Your task to perform on an android device: change text size in settings app Image 0: 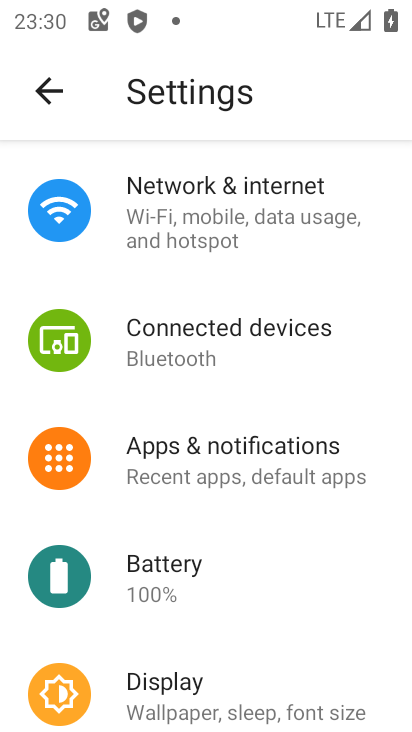
Step 0: press home button
Your task to perform on an android device: change text size in settings app Image 1: 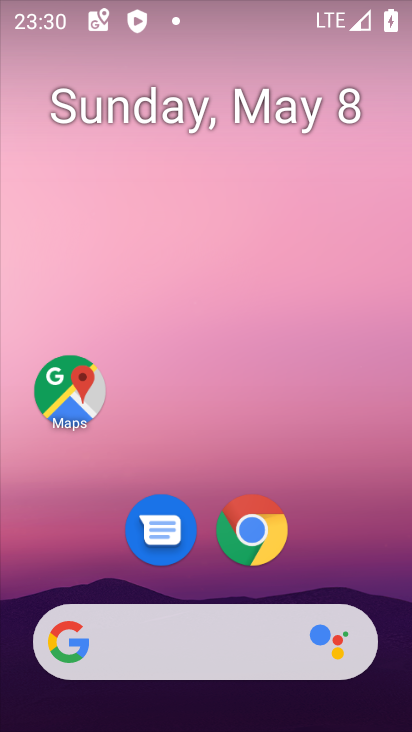
Step 1: drag from (394, 562) to (362, 171)
Your task to perform on an android device: change text size in settings app Image 2: 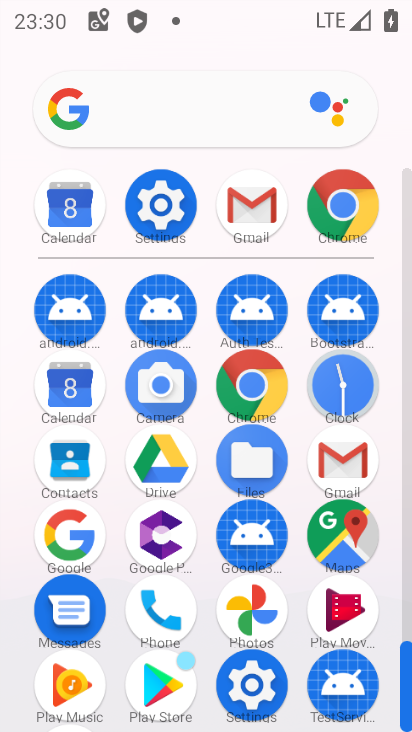
Step 2: click (244, 689)
Your task to perform on an android device: change text size in settings app Image 3: 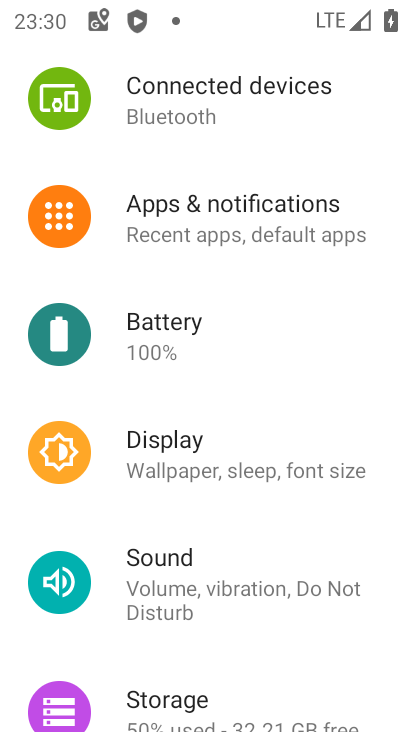
Step 3: click (198, 489)
Your task to perform on an android device: change text size in settings app Image 4: 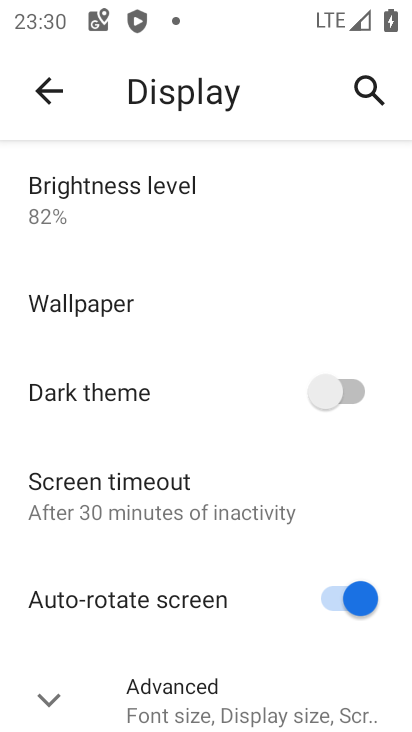
Step 4: drag from (226, 602) to (187, 306)
Your task to perform on an android device: change text size in settings app Image 5: 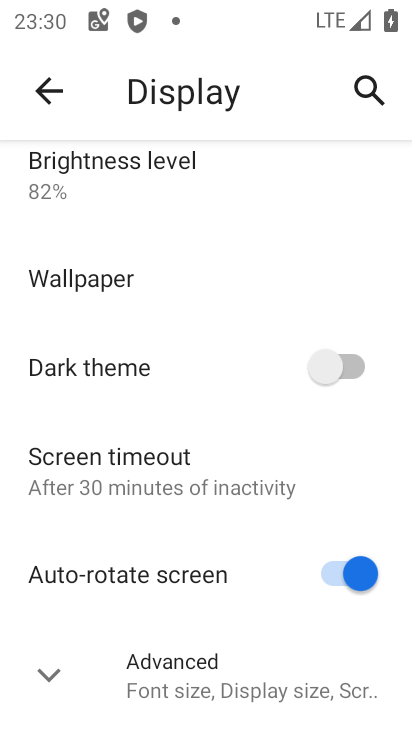
Step 5: click (42, 672)
Your task to perform on an android device: change text size in settings app Image 6: 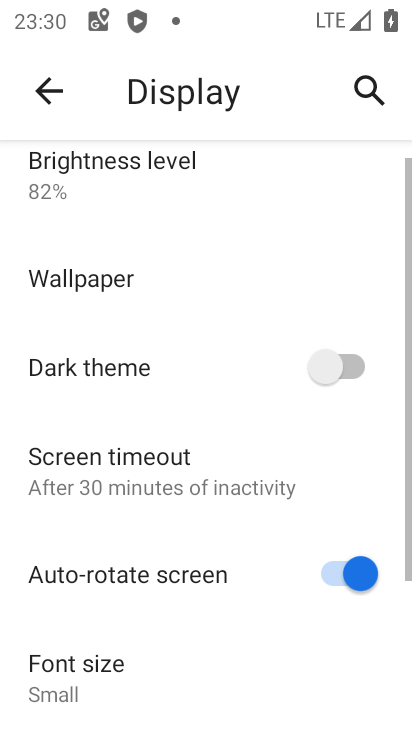
Step 6: drag from (106, 693) to (159, 409)
Your task to perform on an android device: change text size in settings app Image 7: 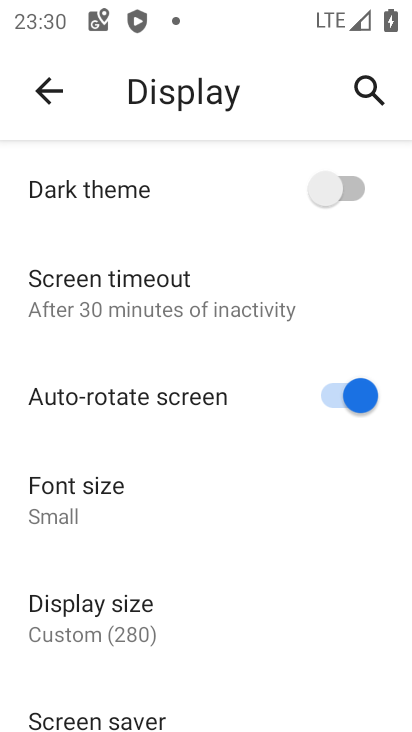
Step 7: click (74, 515)
Your task to perform on an android device: change text size in settings app Image 8: 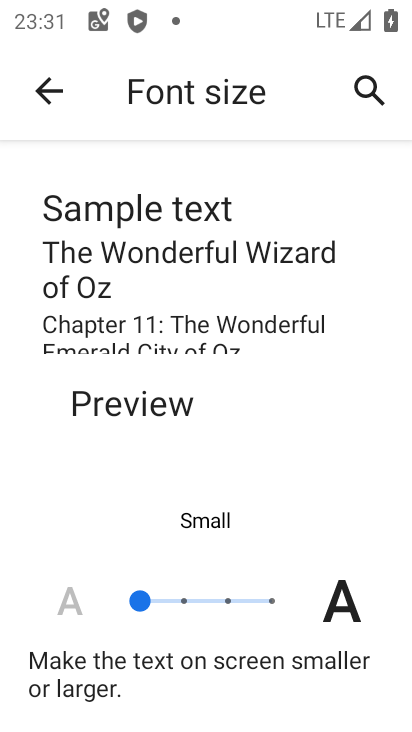
Step 8: click (178, 597)
Your task to perform on an android device: change text size in settings app Image 9: 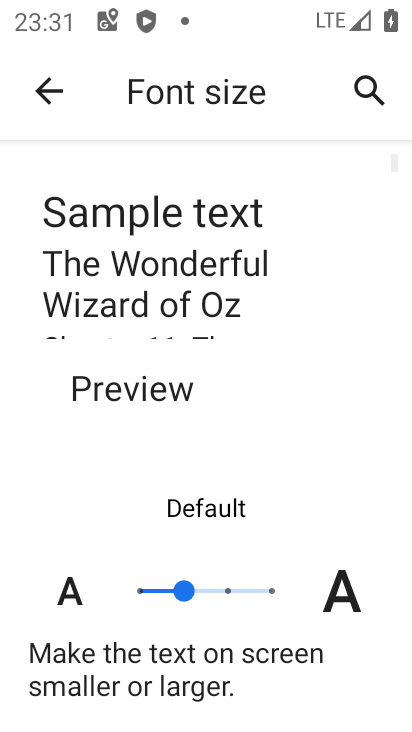
Step 9: task complete